Your task to perform on an android device: see tabs open on other devices in the chrome app Image 0: 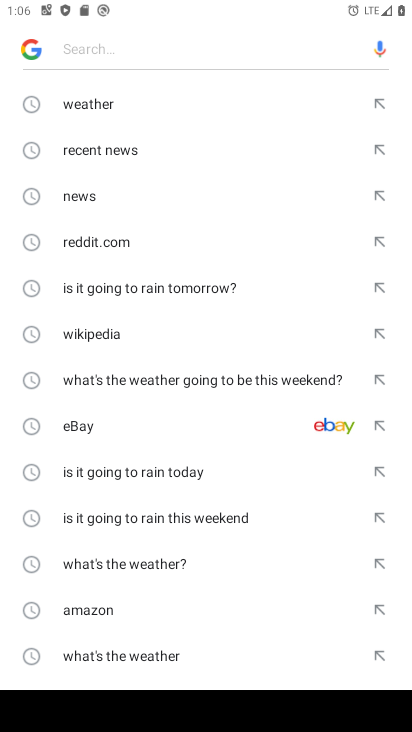
Step 0: press home button
Your task to perform on an android device: see tabs open on other devices in the chrome app Image 1: 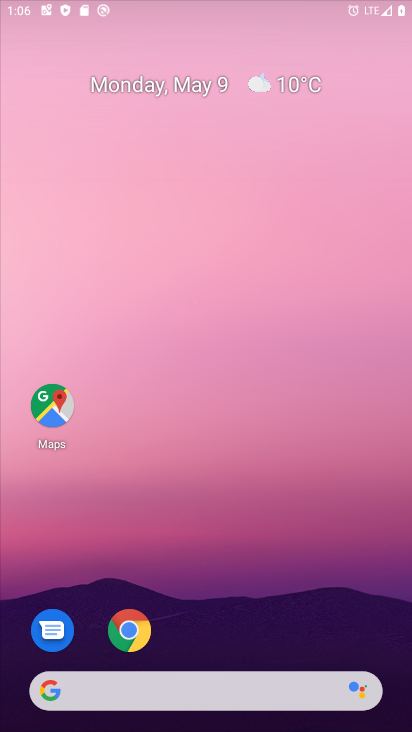
Step 1: drag from (285, 624) to (259, 27)
Your task to perform on an android device: see tabs open on other devices in the chrome app Image 2: 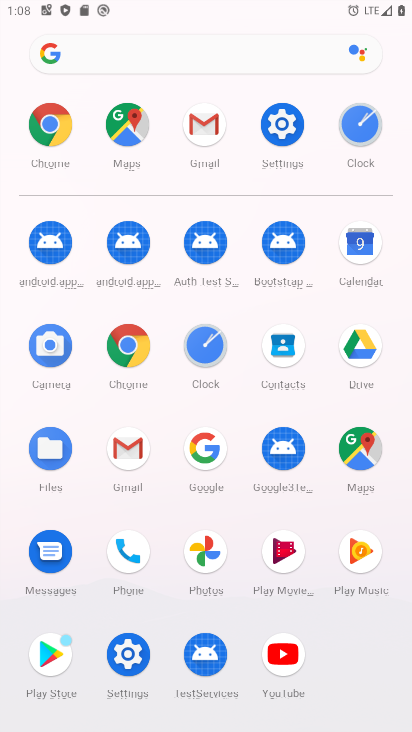
Step 2: click (137, 351)
Your task to perform on an android device: see tabs open on other devices in the chrome app Image 3: 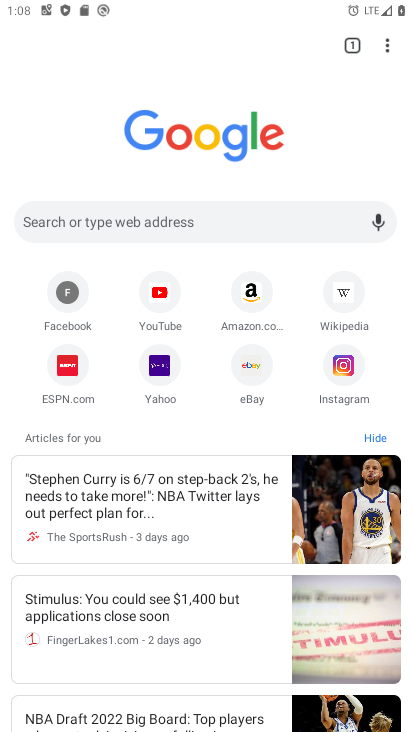
Step 3: task complete